Your task to perform on an android device: turn off translation in the chrome app Image 0: 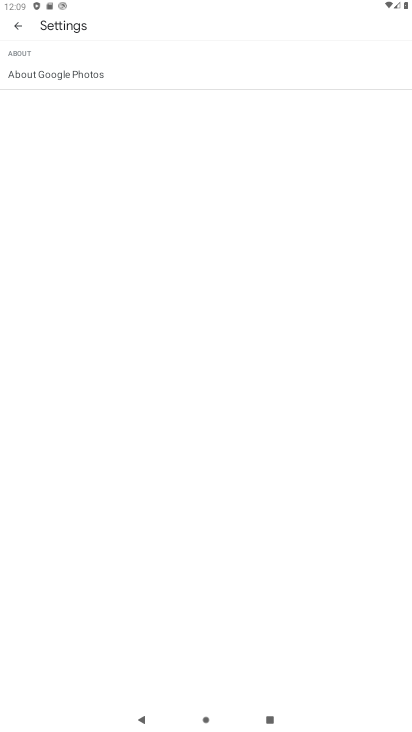
Step 0: press home button
Your task to perform on an android device: turn off translation in the chrome app Image 1: 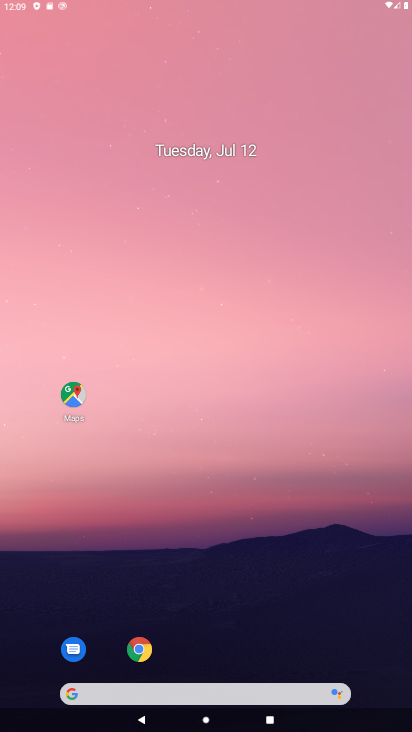
Step 1: drag from (367, 657) to (84, 73)
Your task to perform on an android device: turn off translation in the chrome app Image 2: 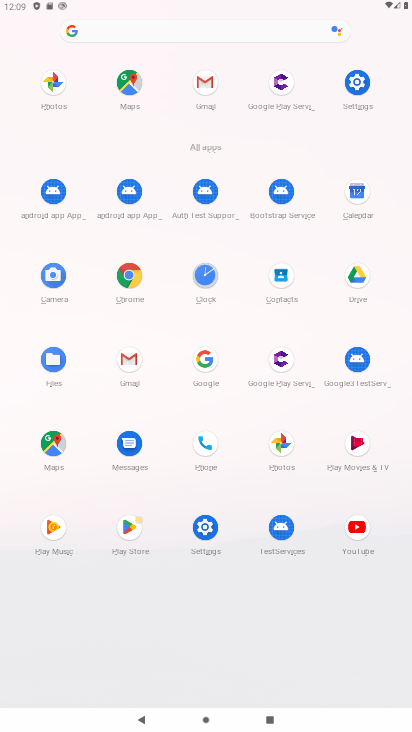
Step 2: click (132, 276)
Your task to perform on an android device: turn off translation in the chrome app Image 3: 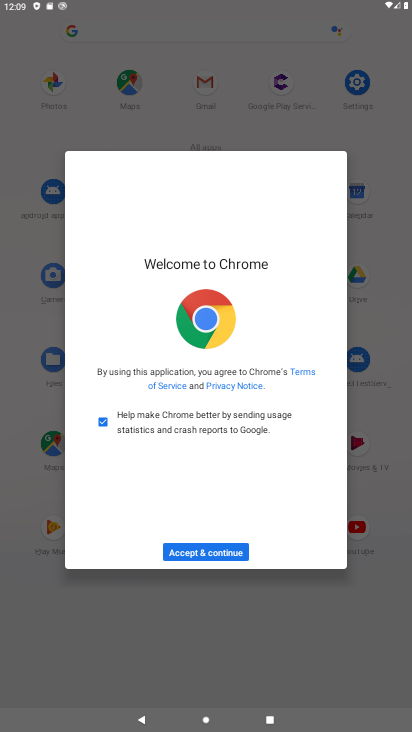
Step 3: click (198, 553)
Your task to perform on an android device: turn off translation in the chrome app Image 4: 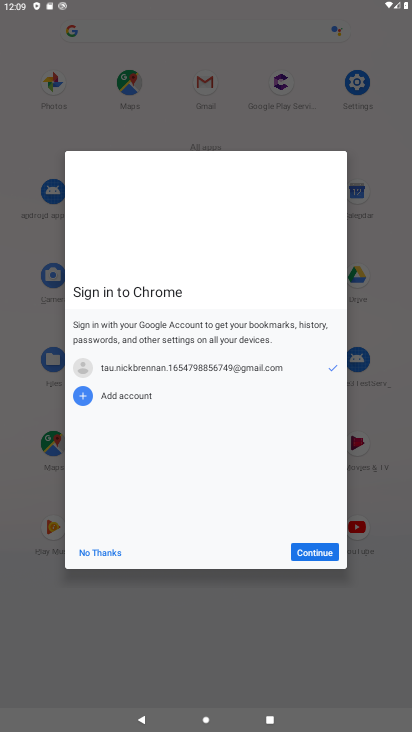
Step 4: click (300, 544)
Your task to perform on an android device: turn off translation in the chrome app Image 5: 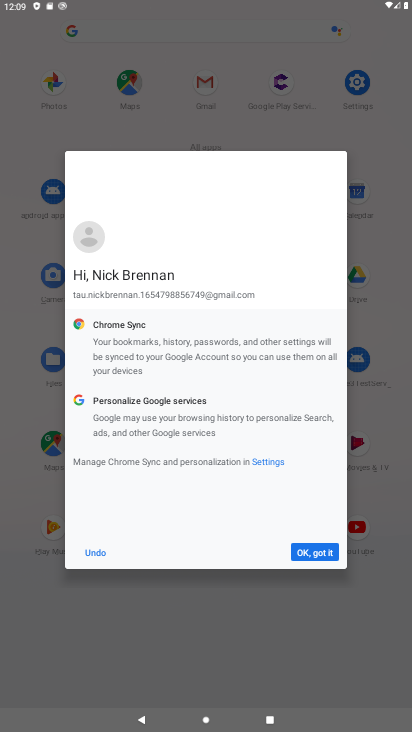
Step 5: click (309, 554)
Your task to perform on an android device: turn off translation in the chrome app Image 6: 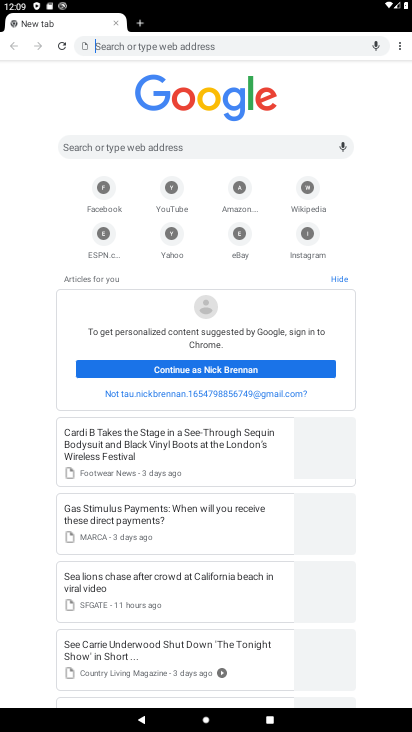
Step 6: click (400, 42)
Your task to perform on an android device: turn off translation in the chrome app Image 7: 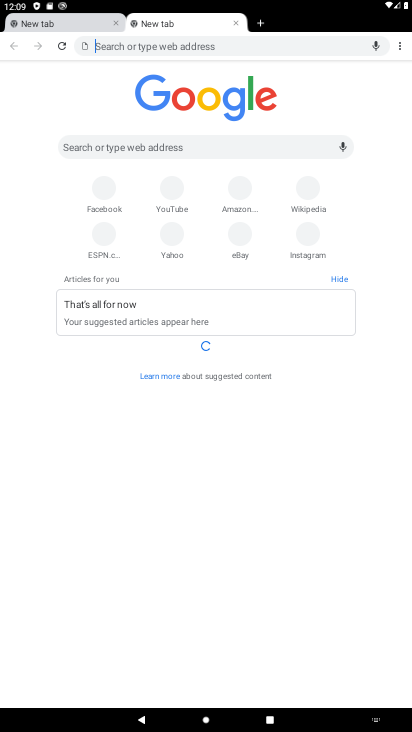
Step 7: click (398, 43)
Your task to perform on an android device: turn off translation in the chrome app Image 8: 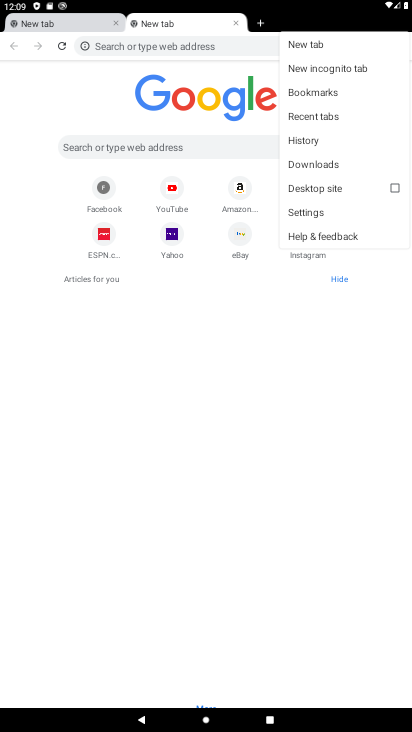
Step 8: click (321, 217)
Your task to perform on an android device: turn off translation in the chrome app Image 9: 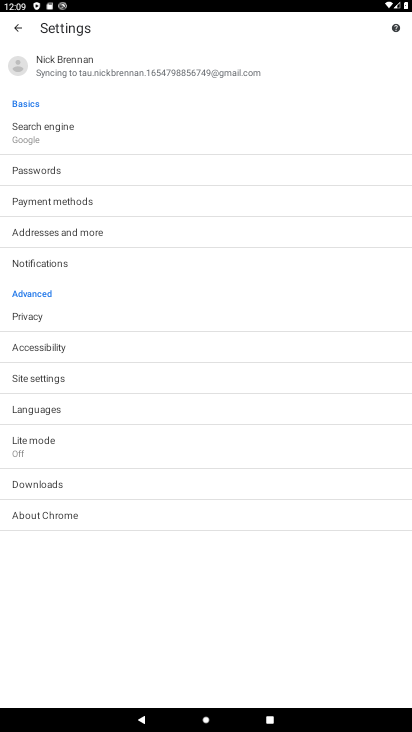
Step 9: click (75, 410)
Your task to perform on an android device: turn off translation in the chrome app Image 10: 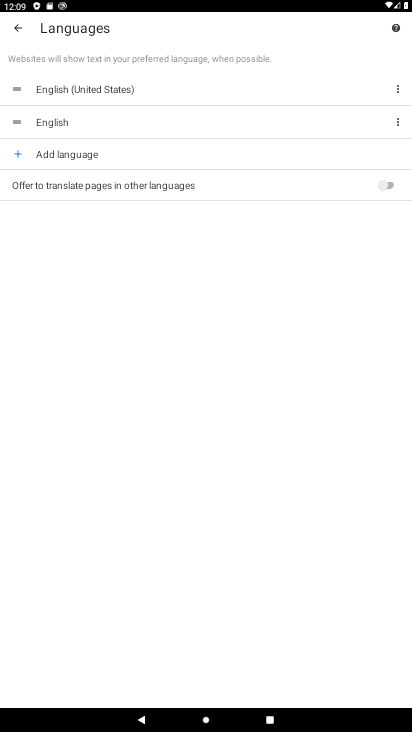
Step 10: task complete